Your task to perform on an android device: Open wifi settings Image 0: 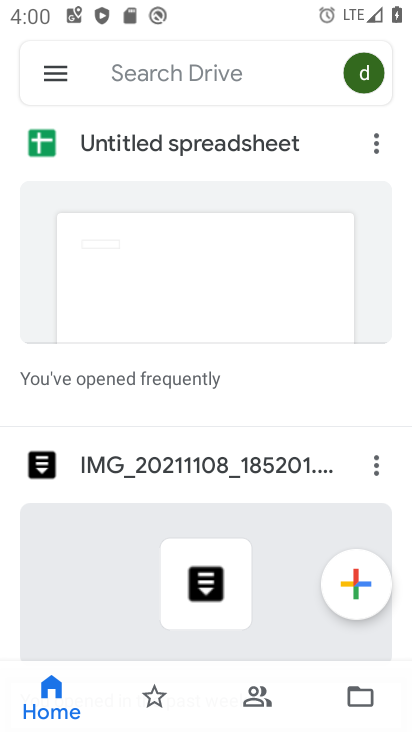
Step 0: press home button
Your task to perform on an android device: Open wifi settings Image 1: 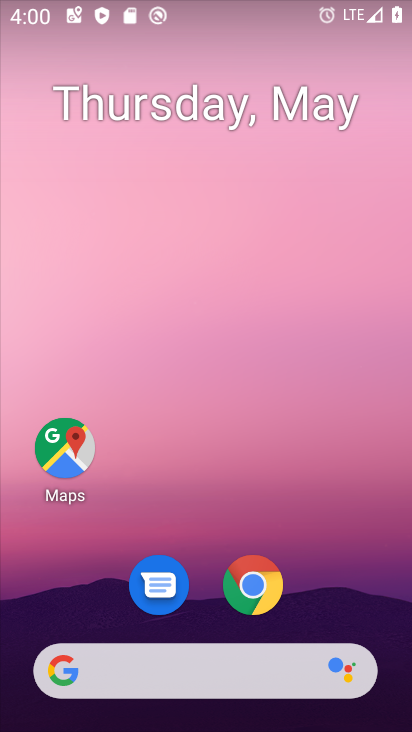
Step 1: drag from (212, 563) to (236, 25)
Your task to perform on an android device: Open wifi settings Image 2: 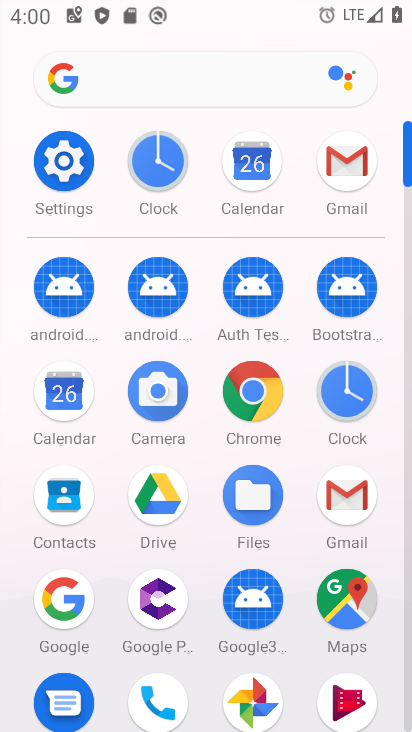
Step 2: click (79, 159)
Your task to perform on an android device: Open wifi settings Image 3: 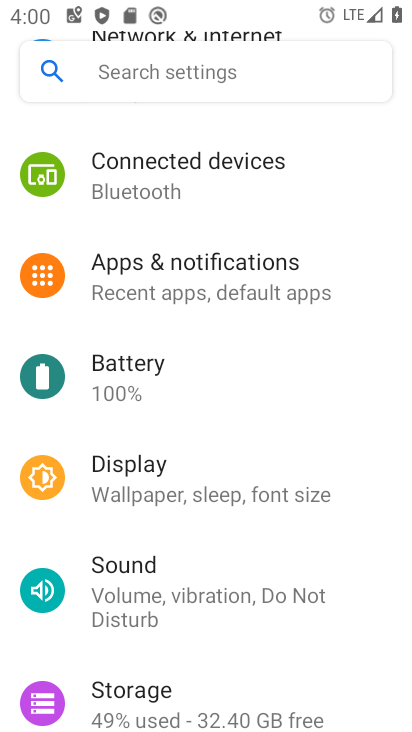
Step 3: drag from (213, 251) to (259, 684)
Your task to perform on an android device: Open wifi settings Image 4: 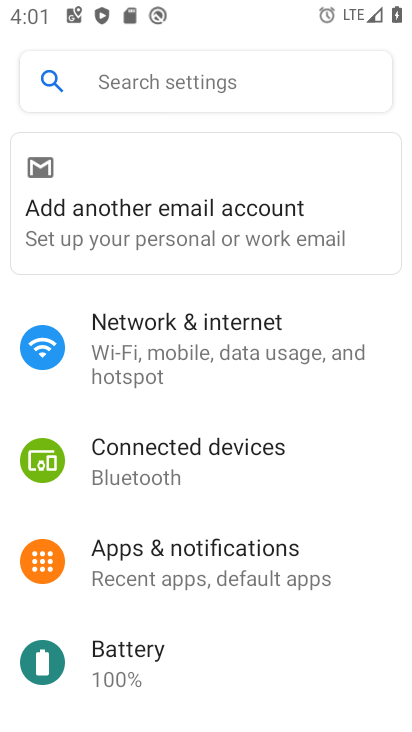
Step 4: click (230, 349)
Your task to perform on an android device: Open wifi settings Image 5: 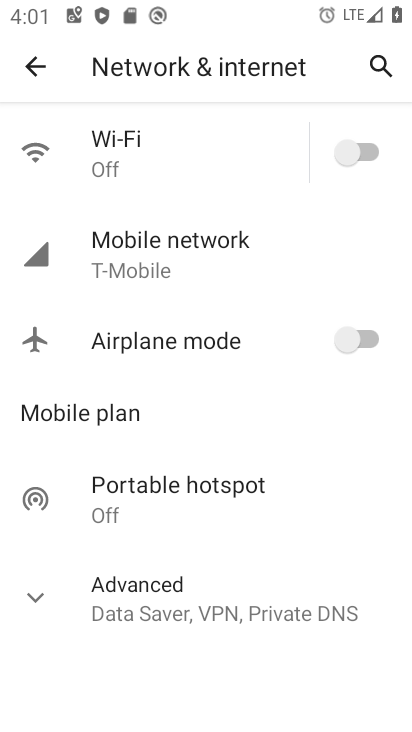
Step 5: click (141, 152)
Your task to perform on an android device: Open wifi settings Image 6: 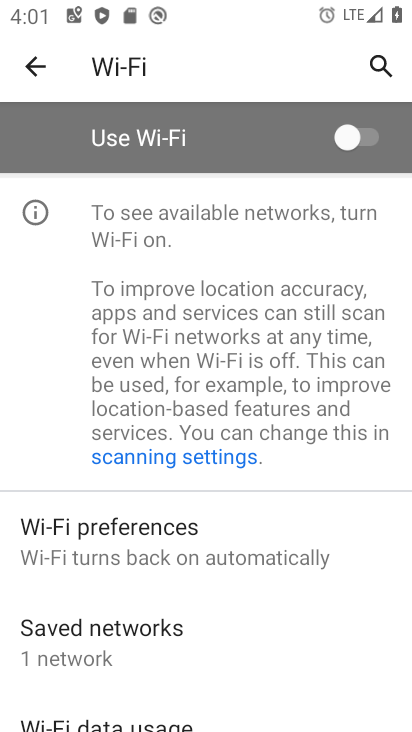
Step 6: task complete